Your task to perform on an android device: Open wifi settings Image 0: 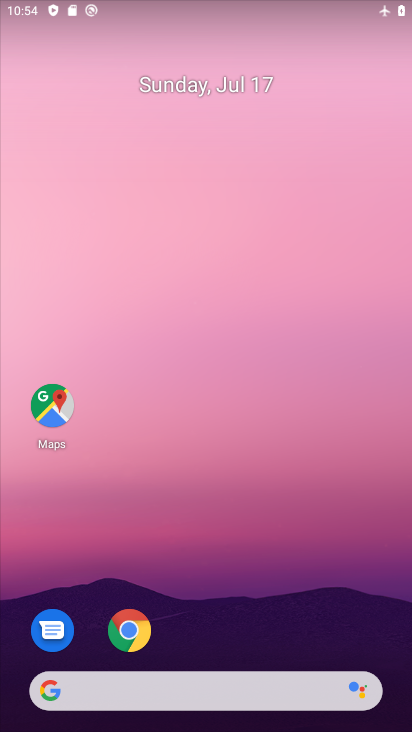
Step 0: drag from (190, 644) to (172, 21)
Your task to perform on an android device: Open wifi settings Image 1: 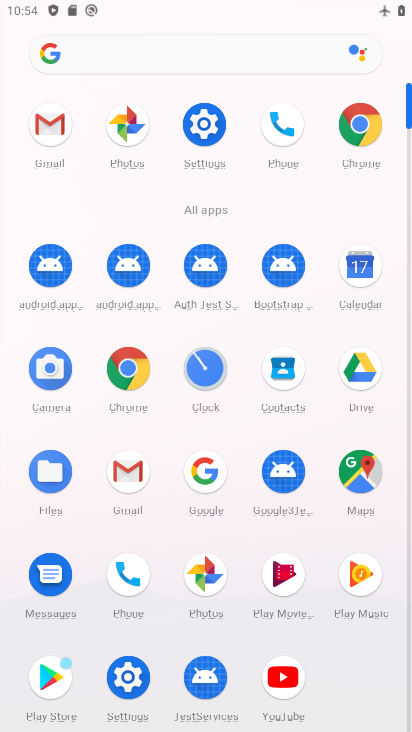
Step 1: click (199, 134)
Your task to perform on an android device: Open wifi settings Image 2: 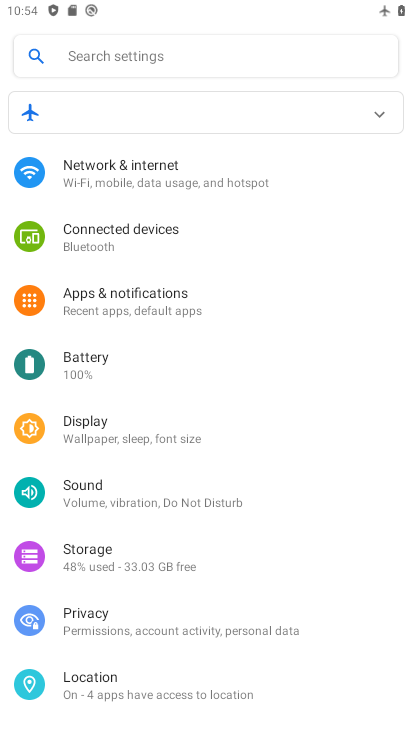
Step 2: click (146, 185)
Your task to perform on an android device: Open wifi settings Image 3: 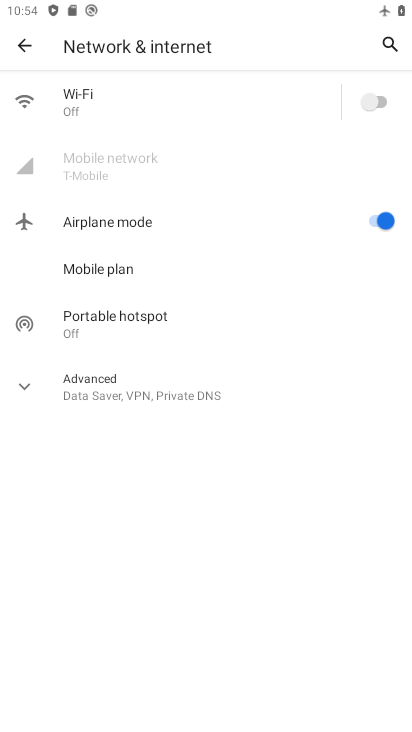
Step 3: click (127, 116)
Your task to perform on an android device: Open wifi settings Image 4: 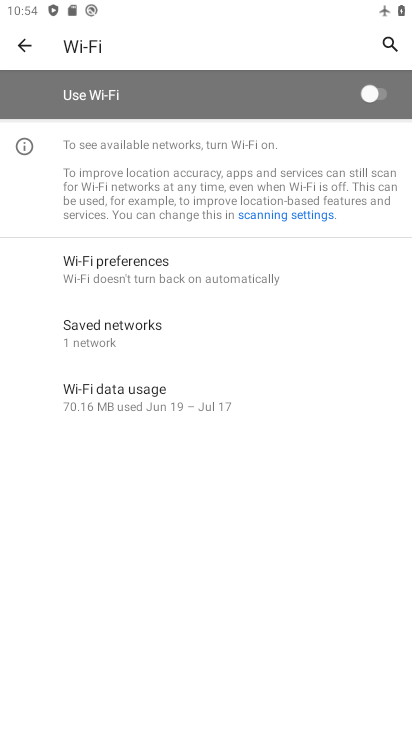
Step 4: task complete